Your task to perform on an android device: What's the weather going to be tomorrow? Image 0: 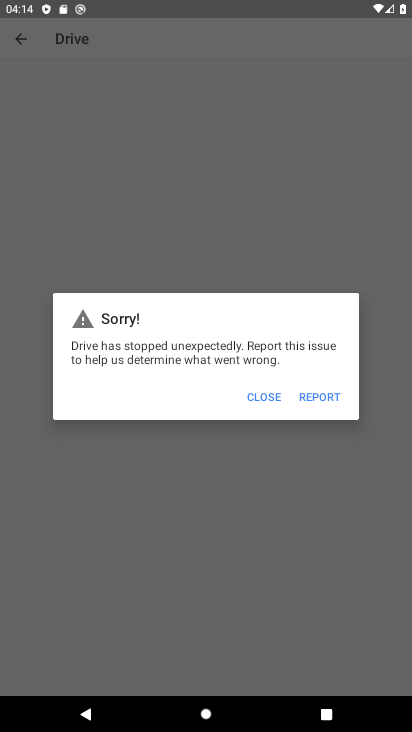
Step 0: press home button
Your task to perform on an android device: What's the weather going to be tomorrow? Image 1: 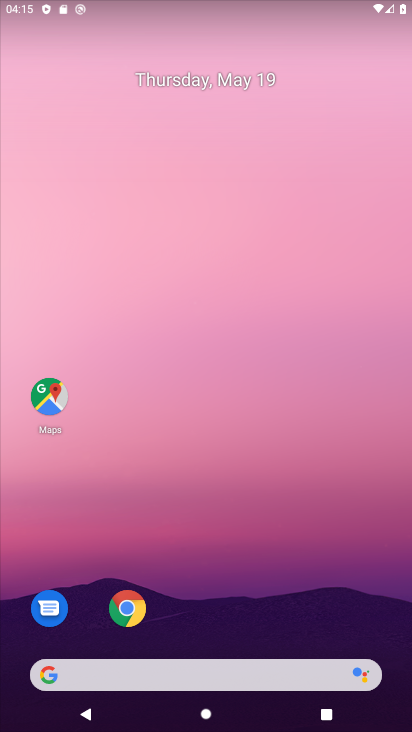
Step 1: drag from (258, 604) to (228, 171)
Your task to perform on an android device: What's the weather going to be tomorrow? Image 2: 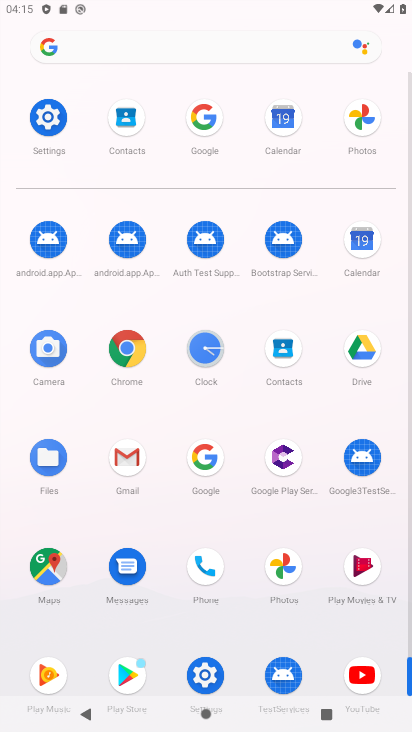
Step 2: click (207, 453)
Your task to perform on an android device: What's the weather going to be tomorrow? Image 3: 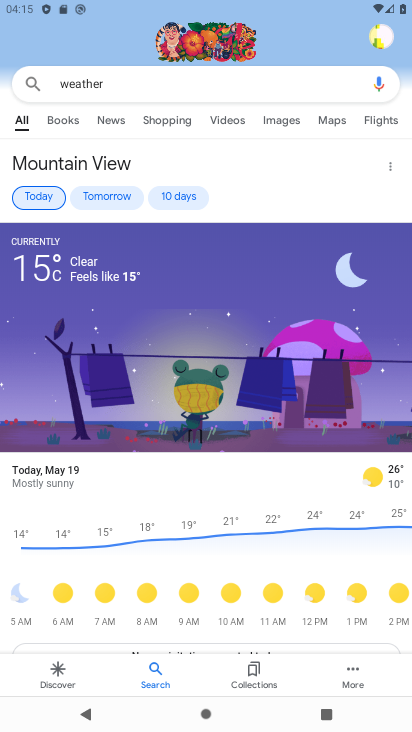
Step 3: click (113, 192)
Your task to perform on an android device: What's the weather going to be tomorrow? Image 4: 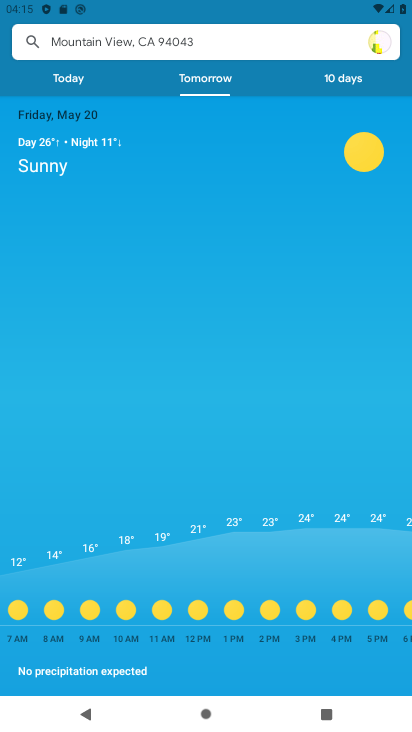
Step 4: task complete